Your task to perform on an android device: Go to battery settings Image 0: 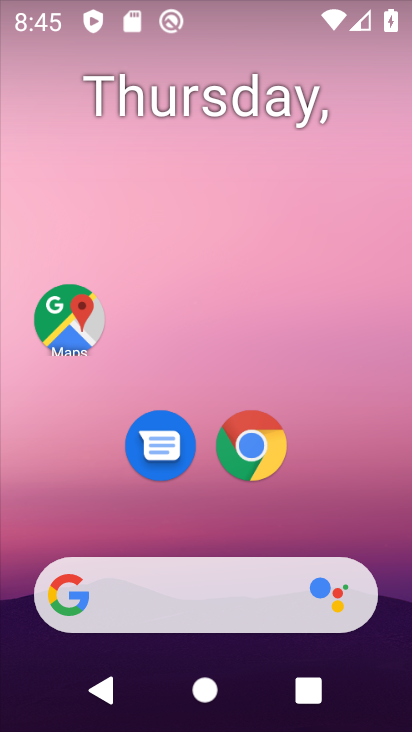
Step 0: drag from (214, 351) to (271, 2)
Your task to perform on an android device: Go to battery settings Image 1: 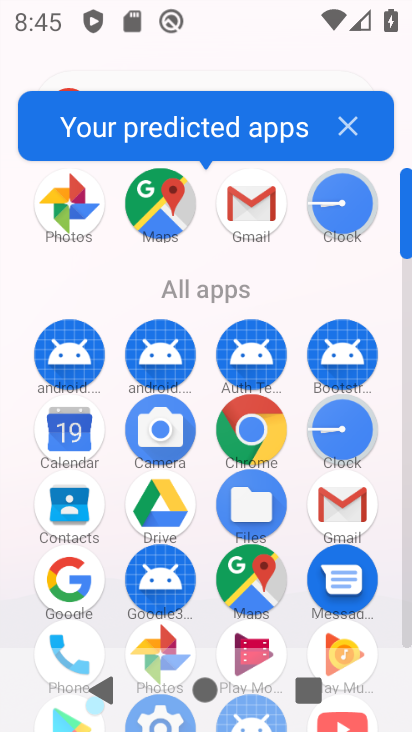
Step 1: drag from (203, 461) to (246, 182)
Your task to perform on an android device: Go to battery settings Image 2: 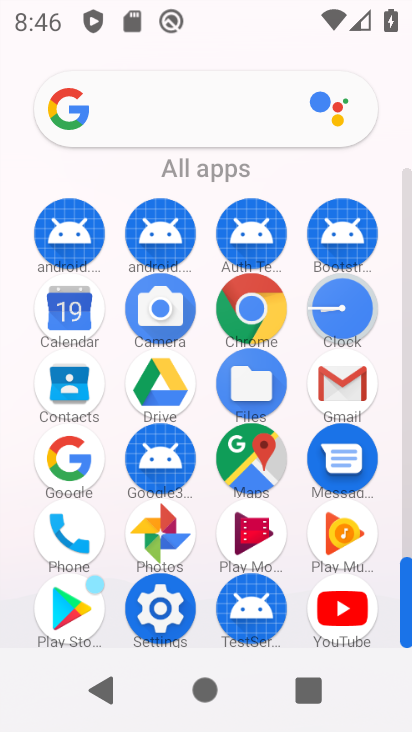
Step 2: click (165, 615)
Your task to perform on an android device: Go to battery settings Image 3: 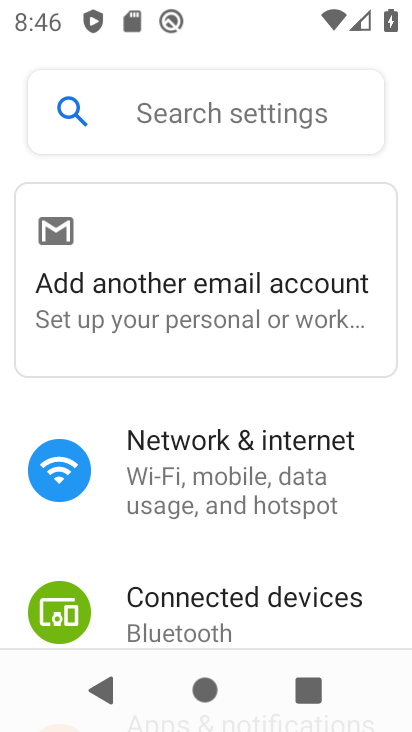
Step 3: drag from (197, 570) to (254, 273)
Your task to perform on an android device: Go to battery settings Image 4: 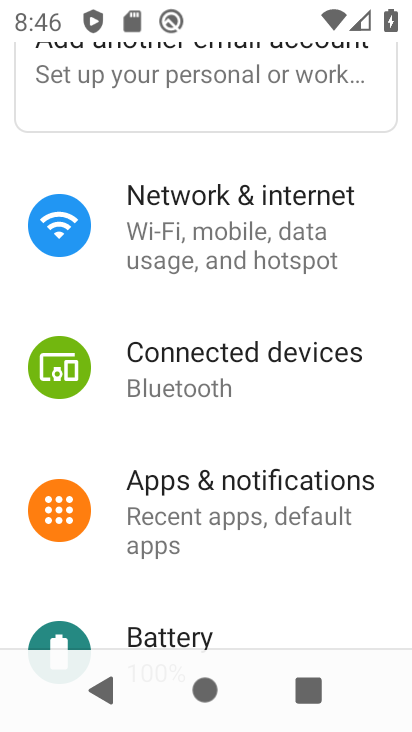
Step 4: click (178, 628)
Your task to perform on an android device: Go to battery settings Image 5: 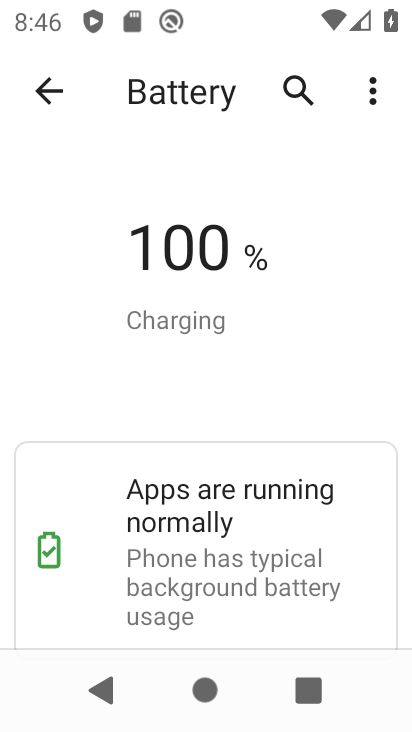
Step 5: task complete